Your task to perform on an android device: Do I have any events tomorrow? Image 0: 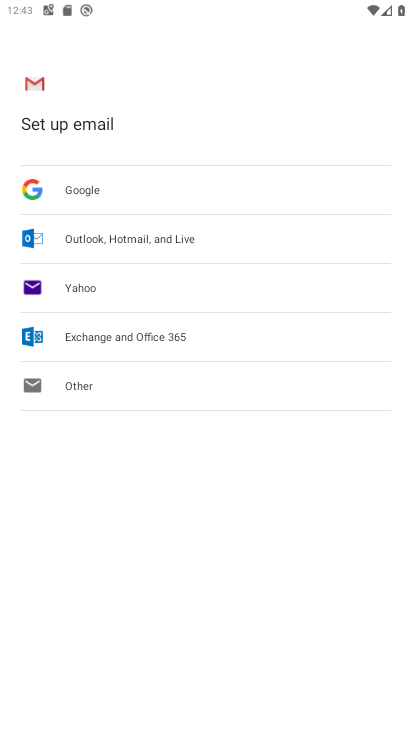
Step 0: press home button
Your task to perform on an android device: Do I have any events tomorrow? Image 1: 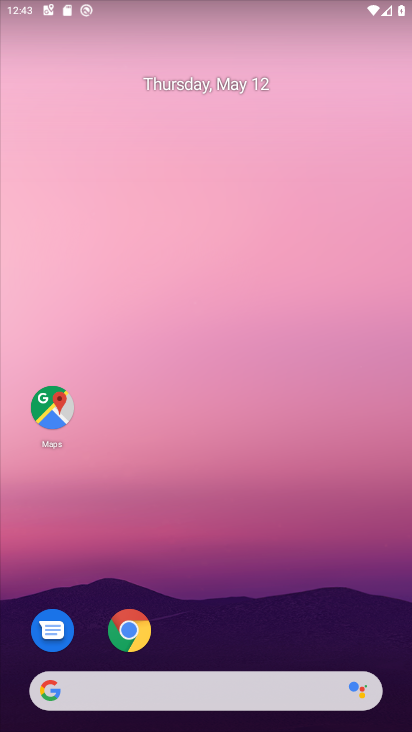
Step 1: drag from (299, 618) to (296, 47)
Your task to perform on an android device: Do I have any events tomorrow? Image 2: 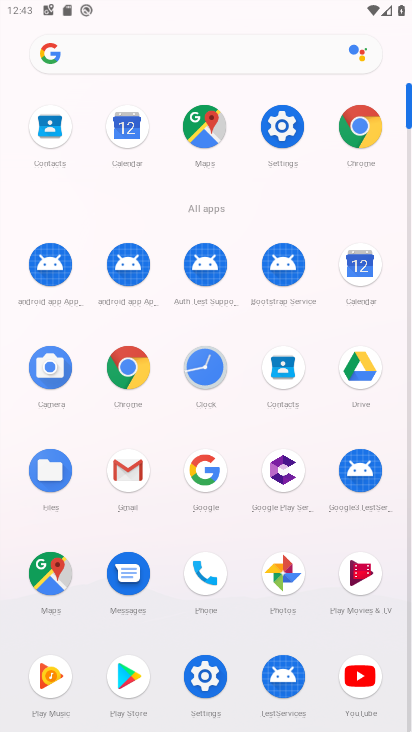
Step 2: click (134, 133)
Your task to perform on an android device: Do I have any events tomorrow? Image 3: 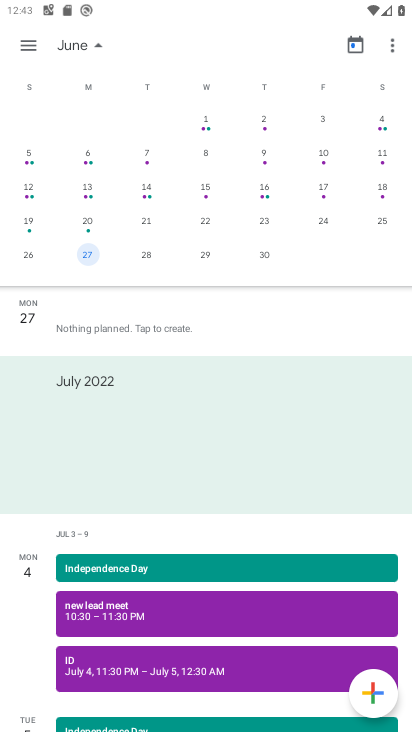
Step 3: drag from (22, 127) to (392, 112)
Your task to perform on an android device: Do I have any events tomorrow? Image 4: 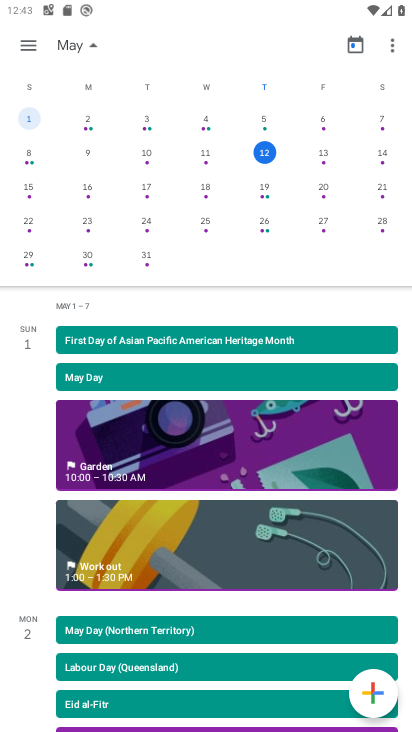
Step 4: click (326, 148)
Your task to perform on an android device: Do I have any events tomorrow? Image 5: 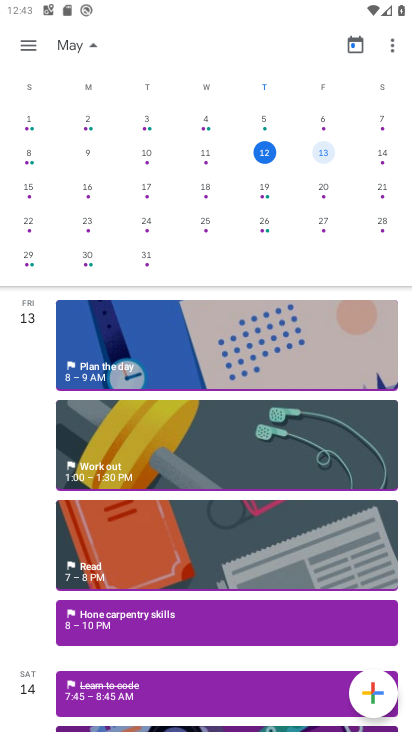
Step 5: task complete